Your task to perform on an android device: open app "Messages" (install if not already installed) Image 0: 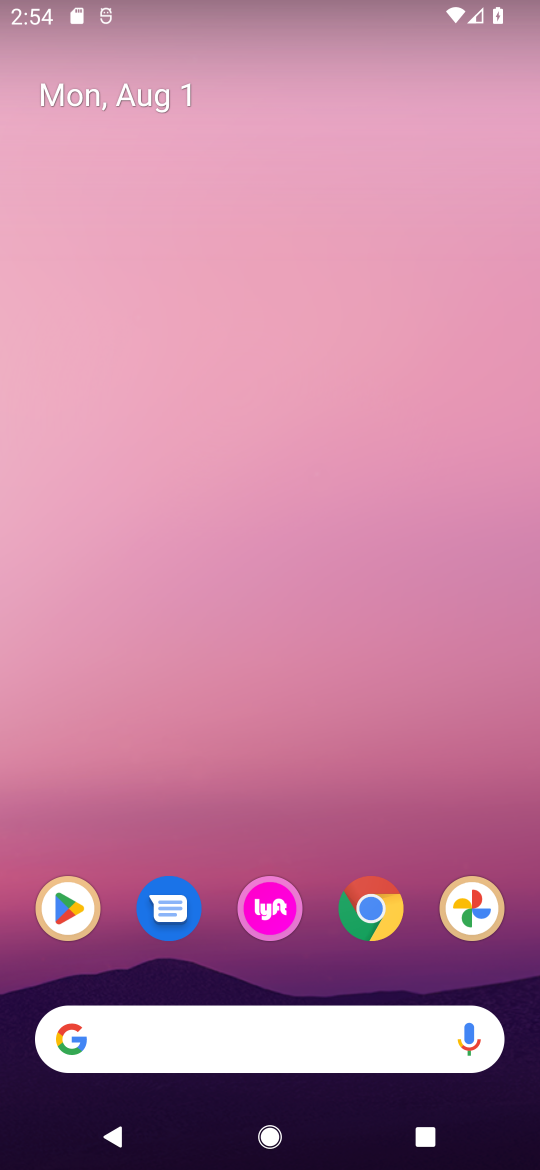
Step 0: click (176, 937)
Your task to perform on an android device: open app "Messages" (install if not already installed) Image 1: 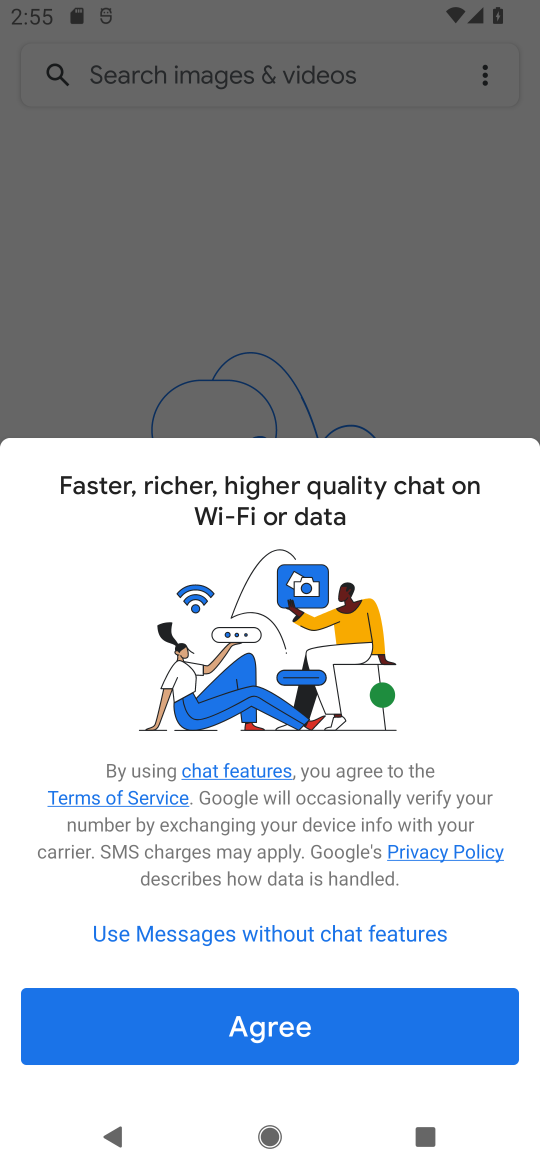
Step 1: click (211, 1008)
Your task to perform on an android device: open app "Messages" (install if not already installed) Image 2: 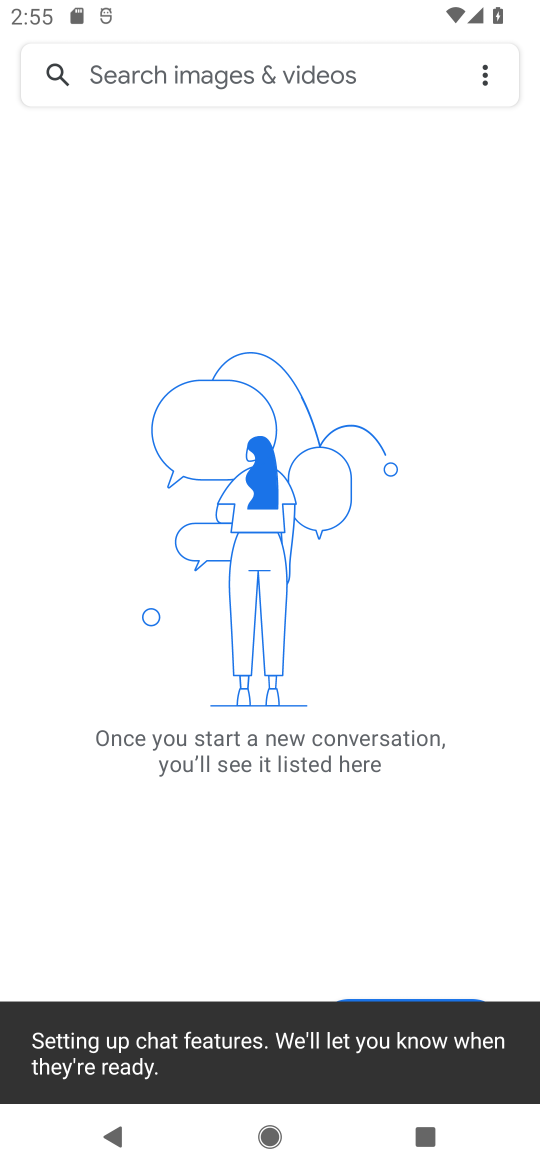
Step 2: task complete